Your task to perform on an android device: Open Amazon Image 0: 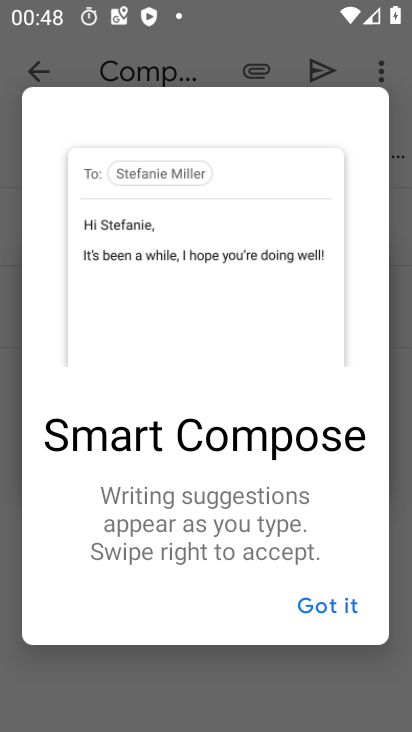
Step 0: click (347, 595)
Your task to perform on an android device: Open Amazon Image 1: 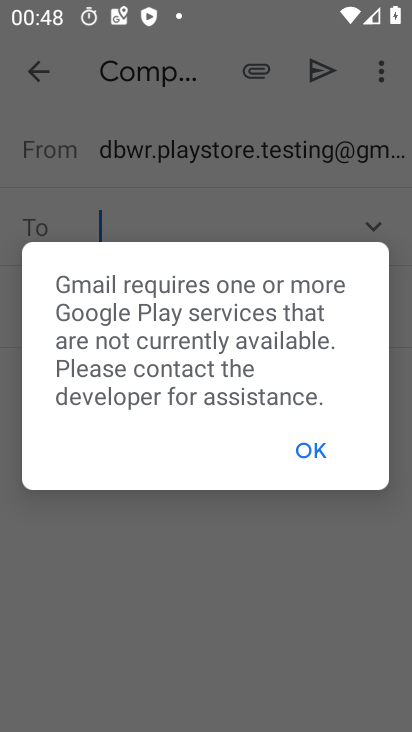
Step 1: press home button
Your task to perform on an android device: Open Amazon Image 2: 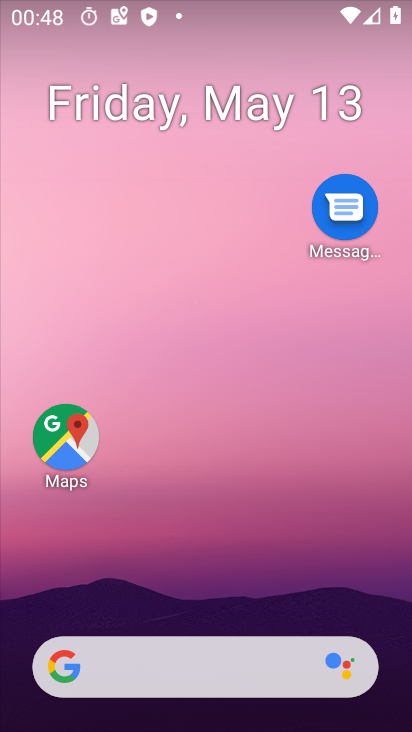
Step 2: drag from (294, 407) to (245, 53)
Your task to perform on an android device: Open Amazon Image 3: 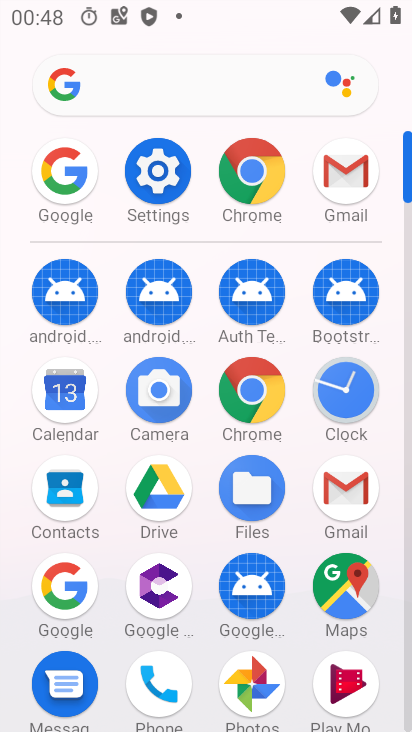
Step 3: click (267, 176)
Your task to perform on an android device: Open Amazon Image 4: 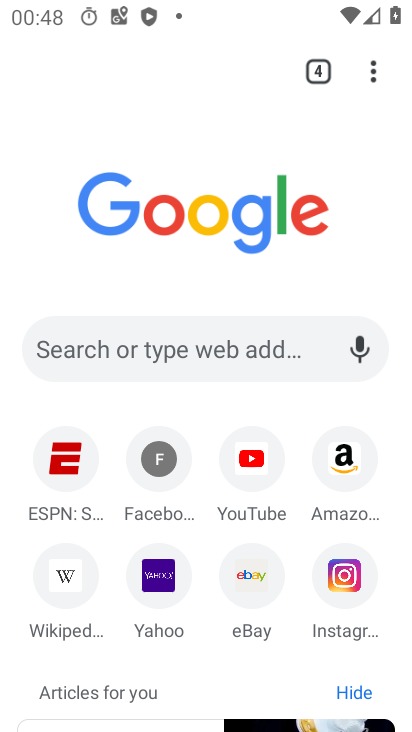
Step 4: click (343, 461)
Your task to perform on an android device: Open Amazon Image 5: 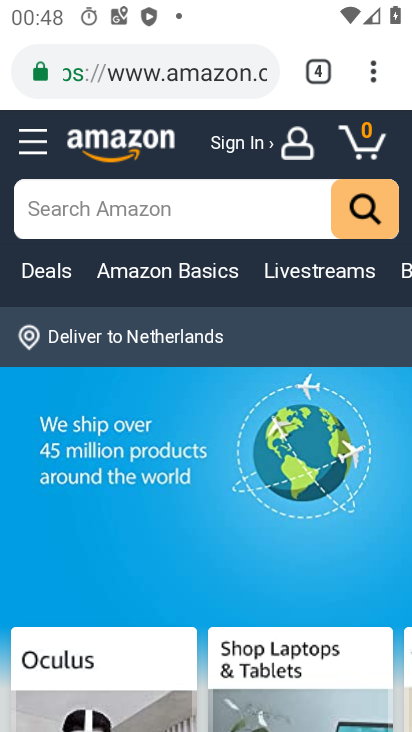
Step 5: task complete